Your task to perform on an android device: toggle javascript in the chrome app Image 0: 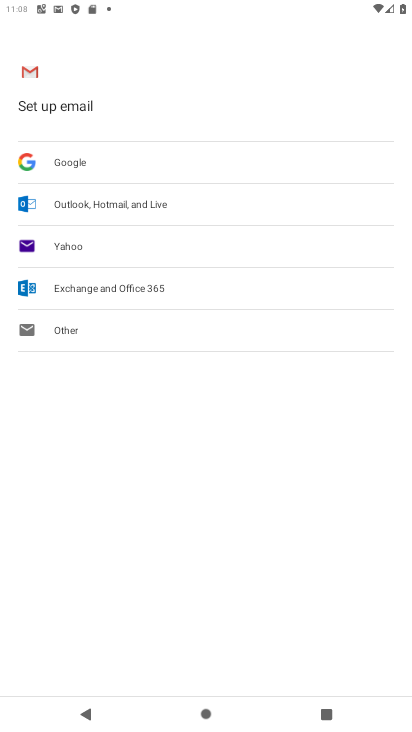
Step 0: press home button
Your task to perform on an android device: toggle javascript in the chrome app Image 1: 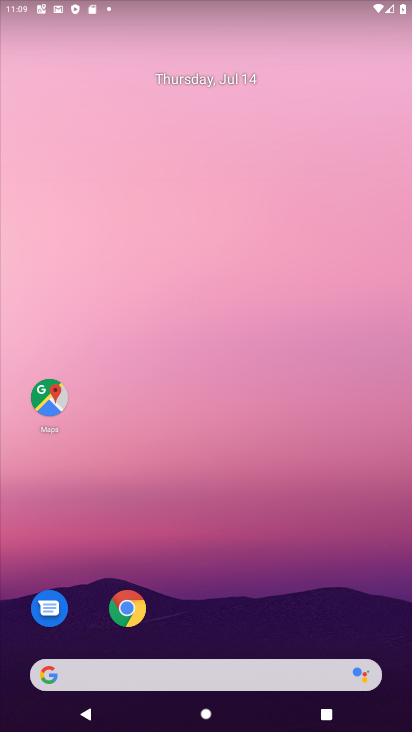
Step 1: drag from (294, 594) to (184, 0)
Your task to perform on an android device: toggle javascript in the chrome app Image 2: 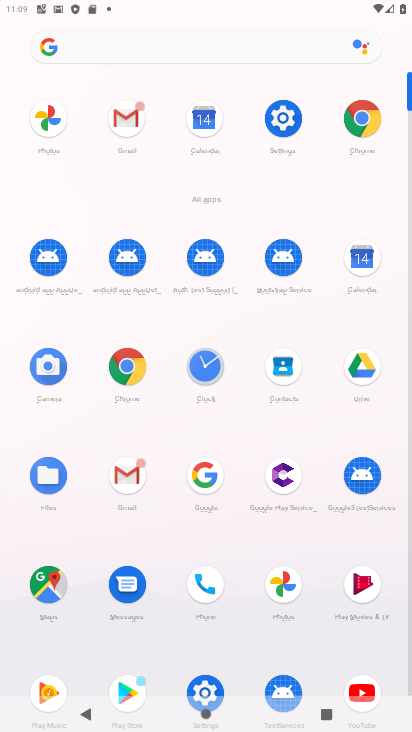
Step 2: click (362, 117)
Your task to perform on an android device: toggle javascript in the chrome app Image 3: 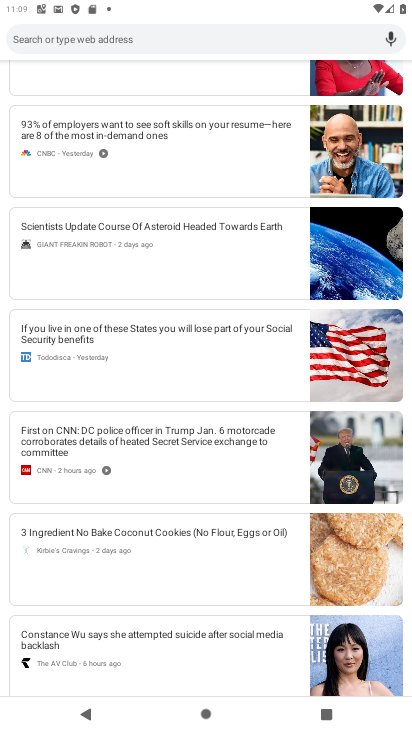
Step 3: drag from (247, 129) to (276, 598)
Your task to perform on an android device: toggle javascript in the chrome app Image 4: 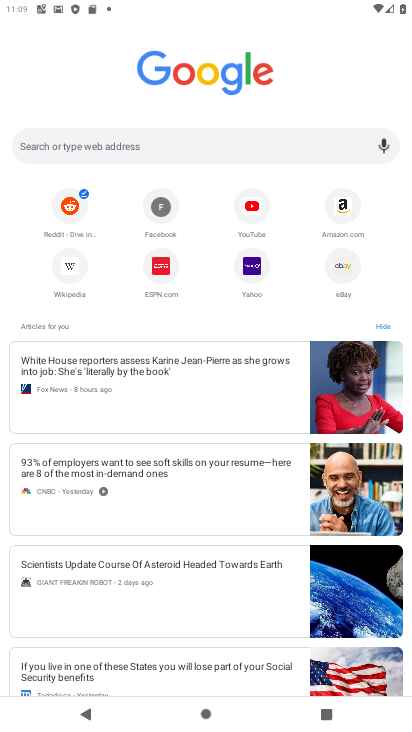
Step 4: drag from (268, 219) to (270, 541)
Your task to perform on an android device: toggle javascript in the chrome app Image 5: 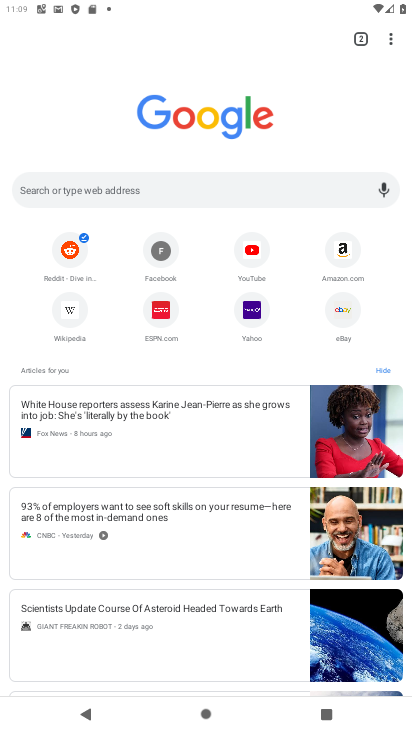
Step 5: drag from (385, 42) to (227, 329)
Your task to perform on an android device: toggle javascript in the chrome app Image 6: 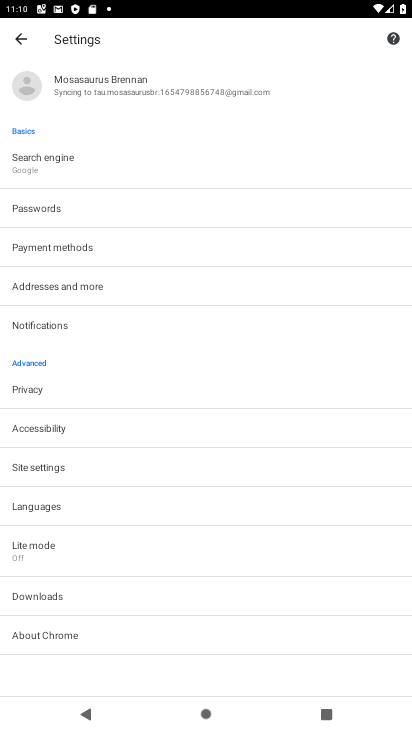
Step 6: click (84, 467)
Your task to perform on an android device: toggle javascript in the chrome app Image 7: 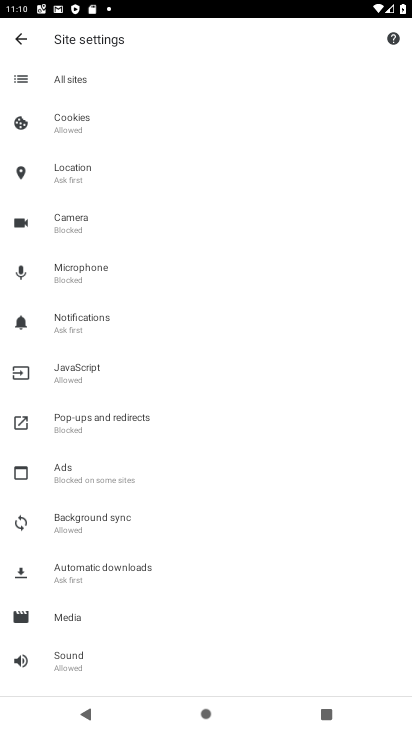
Step 7: click (71, 365)
Your task to perform on an android device: toggle javascript in the chrome app Image 8: 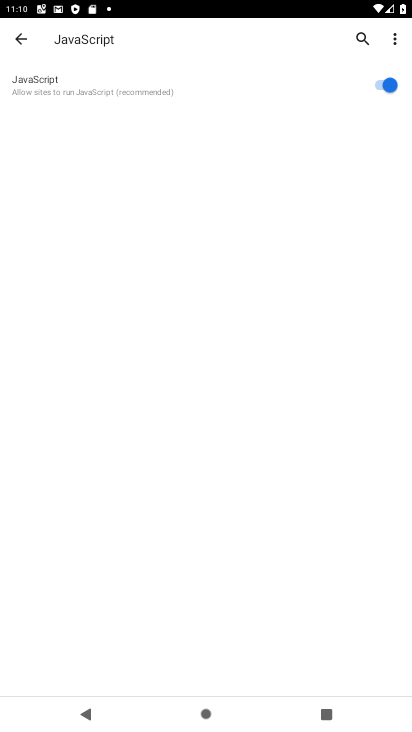
Step 8: click (371, 85)
Your task to perform on an android device: toggle javascript in the chrome app Image 9: 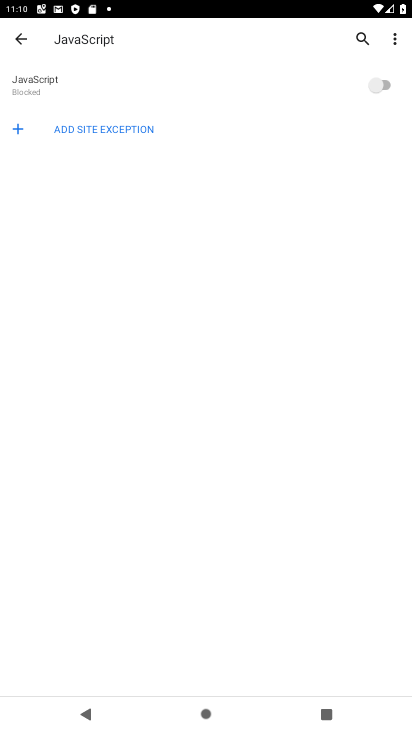
Step 9: task complete